Your task to perform on an android device: toggle javascript in the chrome app Image 0: 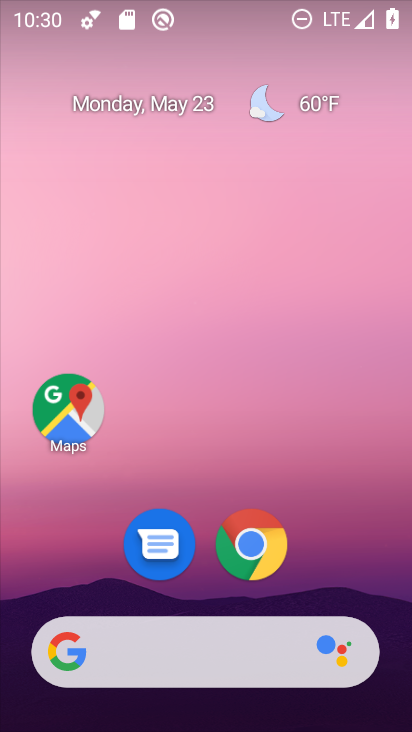
Step 0: click (251, 556)
Your task to perform on an android device: toggle javascript in the chrome app Image 1: 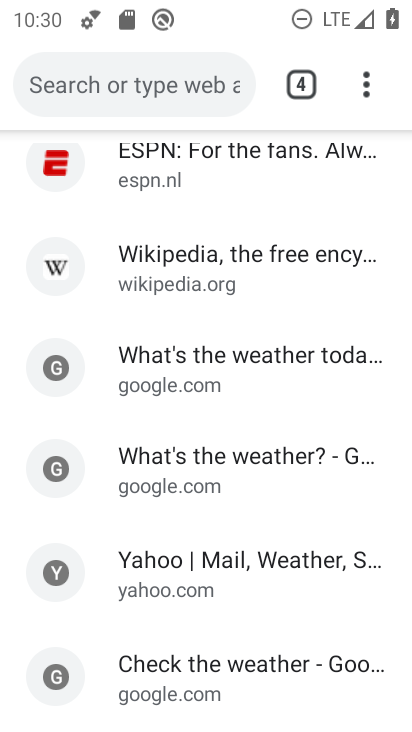
Step 1: click (367, 84)
Your task to perform on an android device: toggle javascript in the chrome app Image 2: 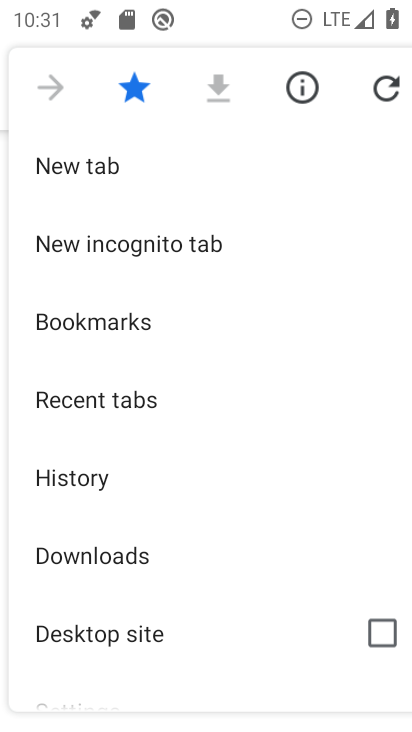
Step 2: drag from (174, 646) to (129, 291)
Your task to perform on an android device: toggle javascript in the chrome app Image 3: 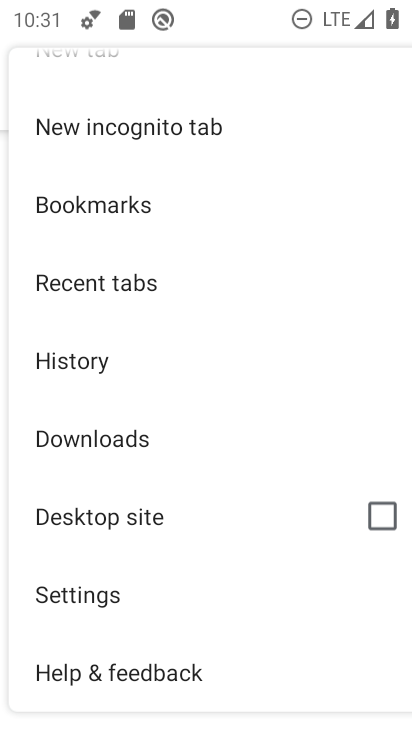
Step 3: click (110, 597)
Your task to perform on an android device: toggle javascript in the chrome app Image 4: 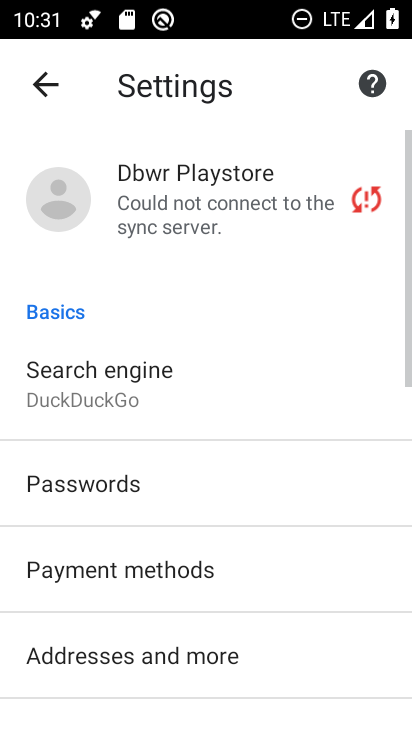
Step 4: drag from (110, 597) to (99, 220)
Your task to perform on an android device: toggle javascript in the chrome app Image 5: 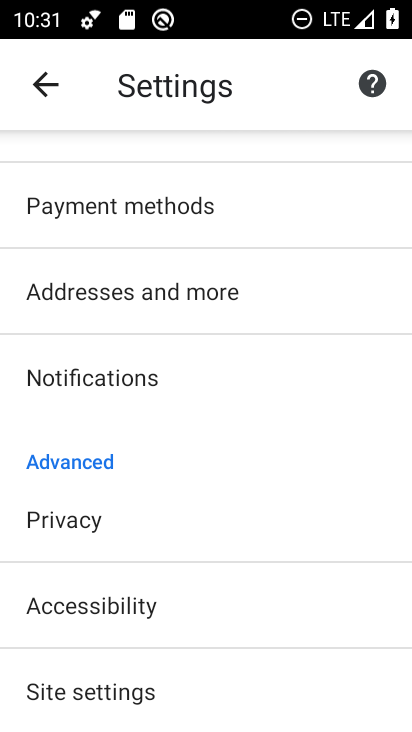
Step 5: click (137, 689)
Your task to perform on an android device: toggle javascript in the chrome app Image 6: 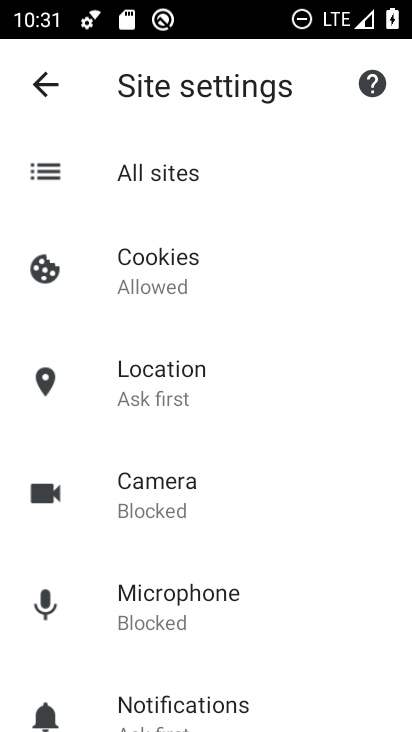
Step 6: drag from (325, 637) to (315, 238)
Your task to perform on an android device: toggle javascript in the chrome app Image 7: 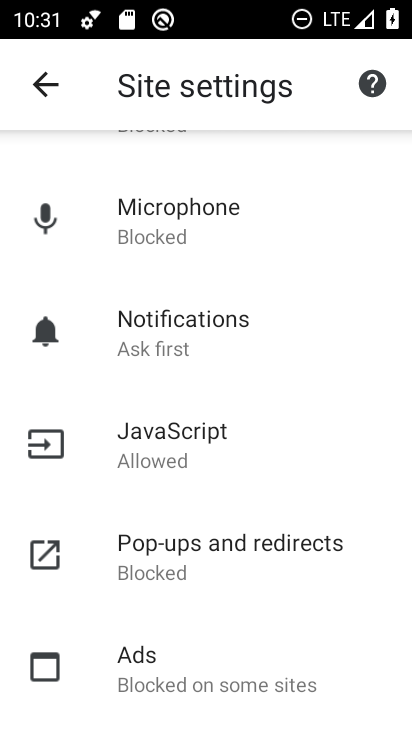
Step 7: click (192, 439)
Your task to perform on an android device: toggle javascript in the chrome app Image 8: 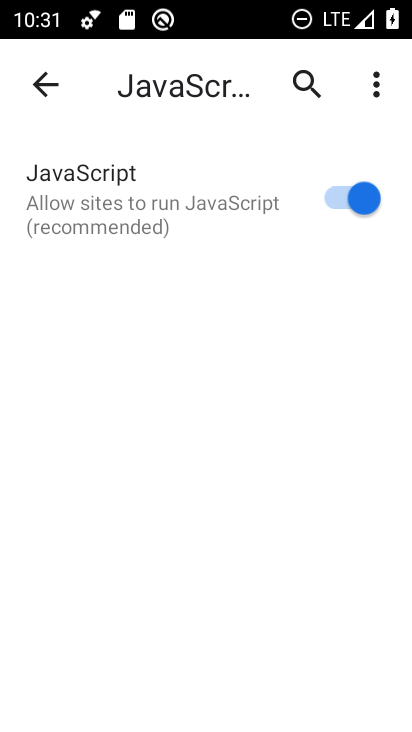
Step 8: click (356, 204)
Your task to perform on an android device: toggle javascript in the chrome app Image 9: 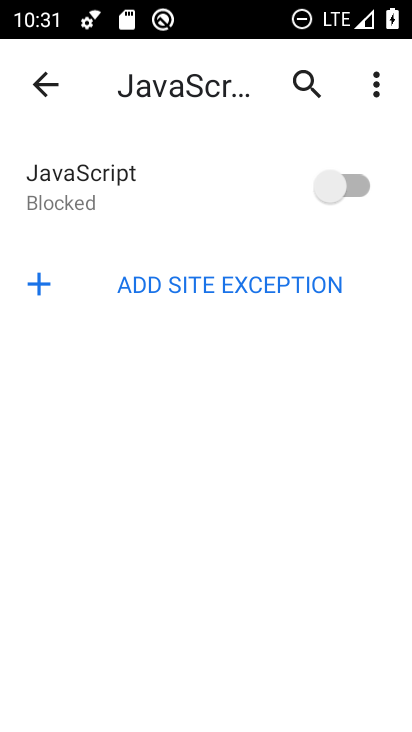
Step 9: task complete